Your task to perform on an android device: check the backup settings in the google photos Image 0: 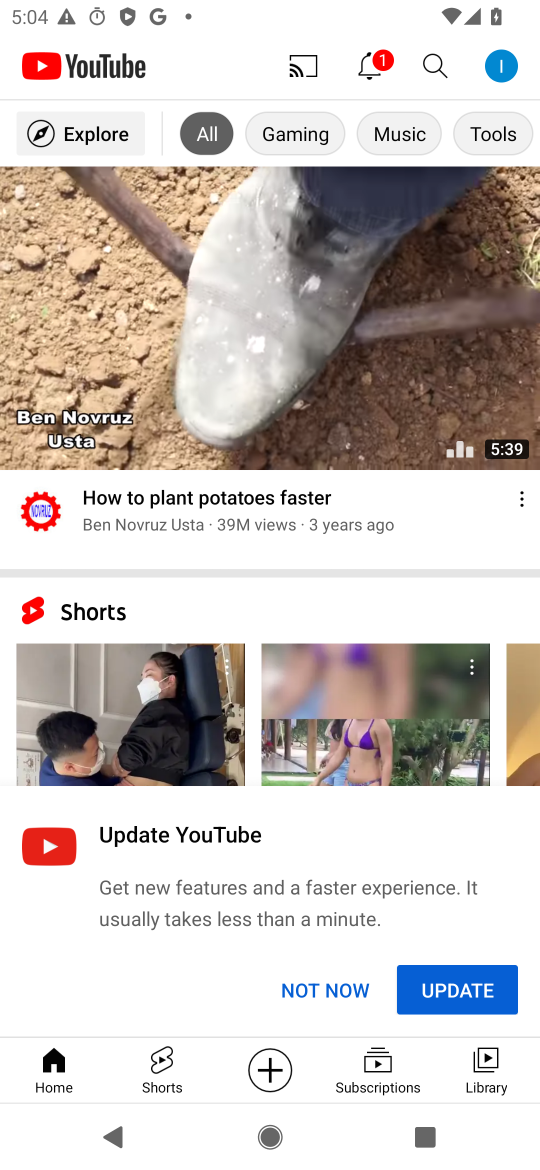
Step 0: press home button
Your task to perform on an android device: check the backup settings in the google photos Image 1: 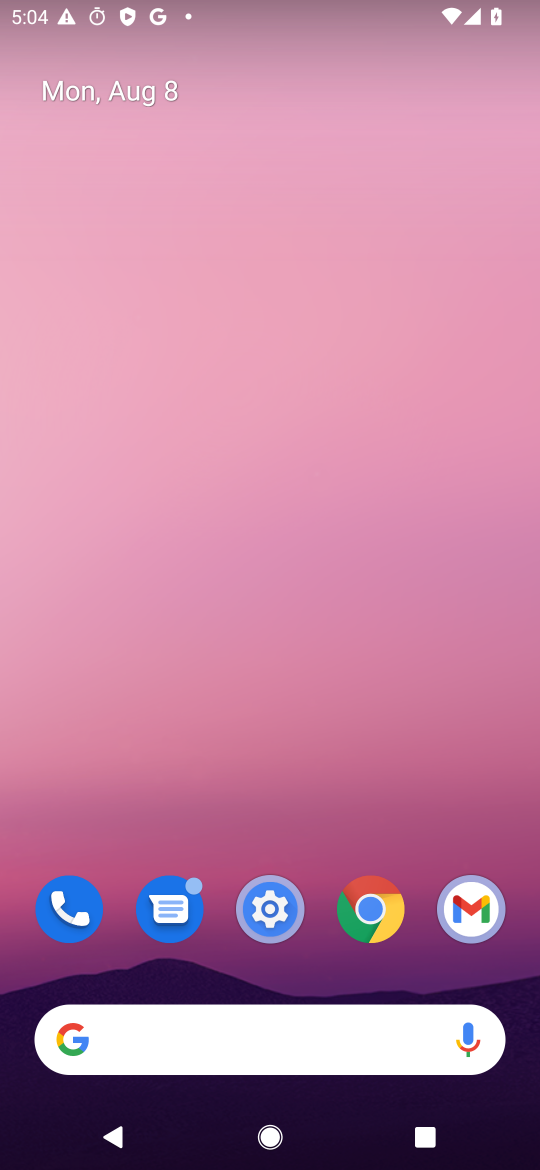
Step 1: drag from (262, 1000) to (317, 220)
Your task to perform on an android device: check the backup settings in the google photos Image 2: 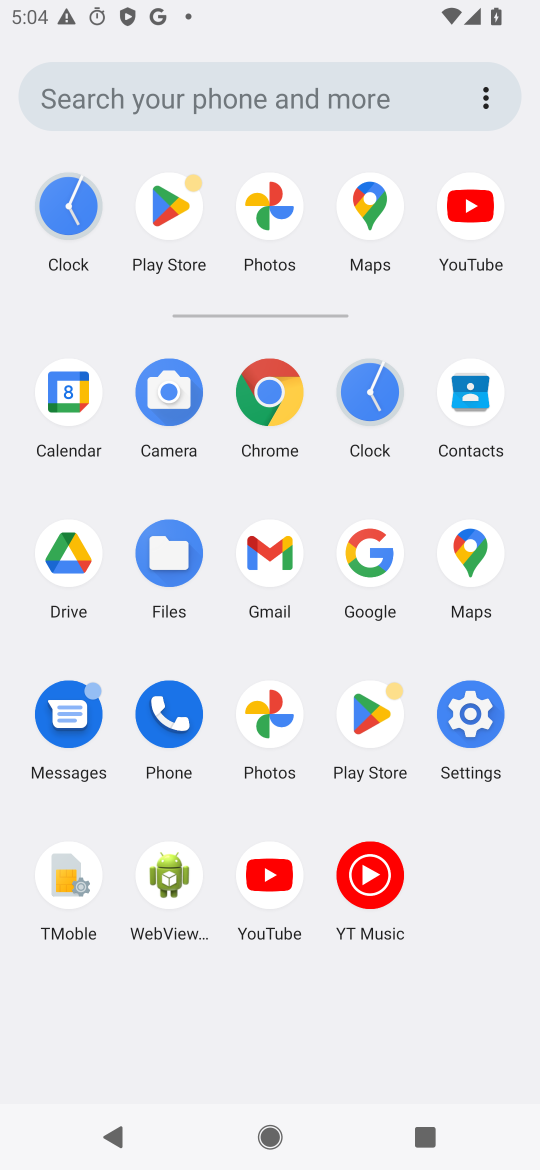
Step 2: click (271, 714)
Your task to perform on an android device: check the backup settings in the google photos Image 3: 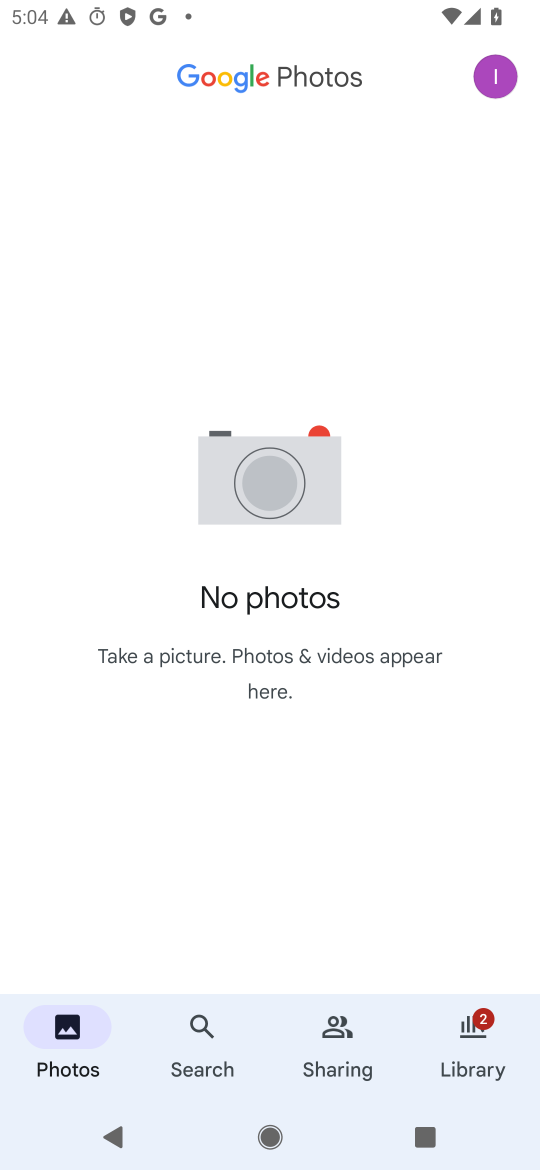
Step 3: click (492, 82)
Your task to perform on an android device: check the backup settings in the google photos Image 4: 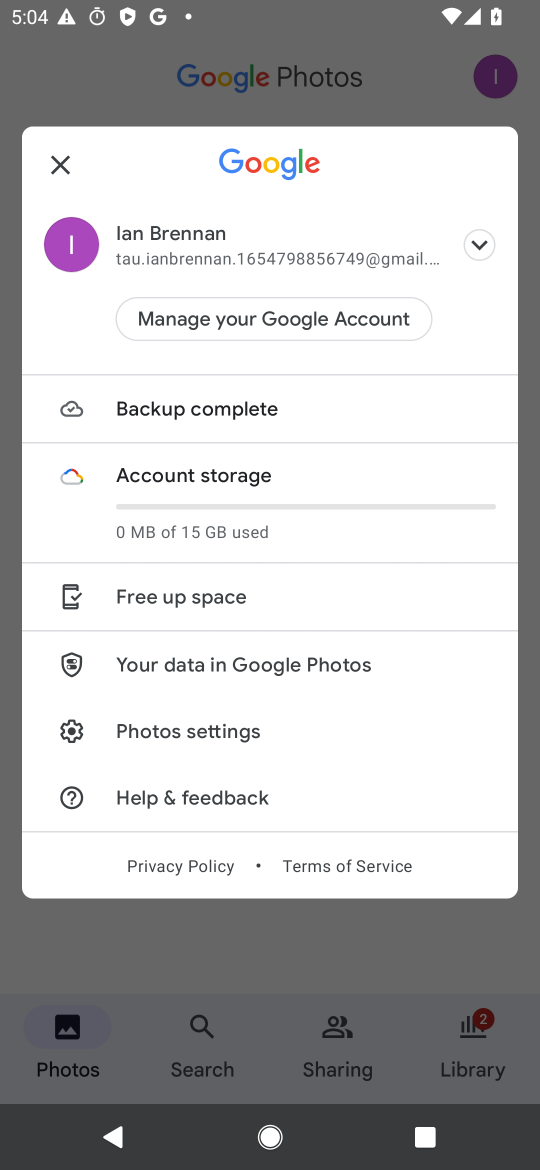
Step 4: click (243, 730)
Your task to perform on an android device: check the backup settings in the google photos Image 5: 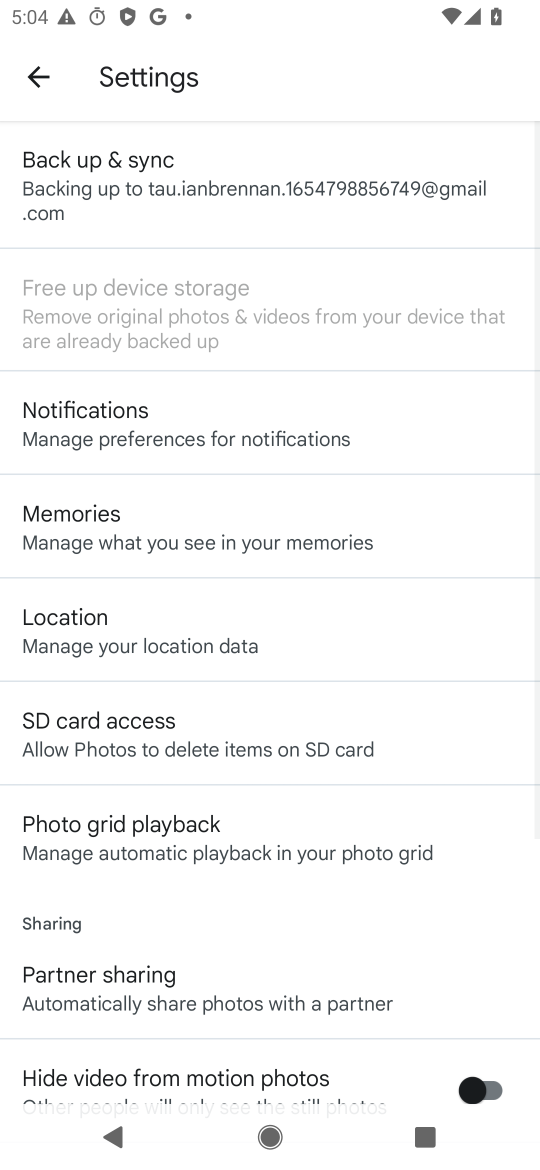
Step 5: click (251, 213)
Your task to perform on an android device: check the backup settings in the google photos Image 6: 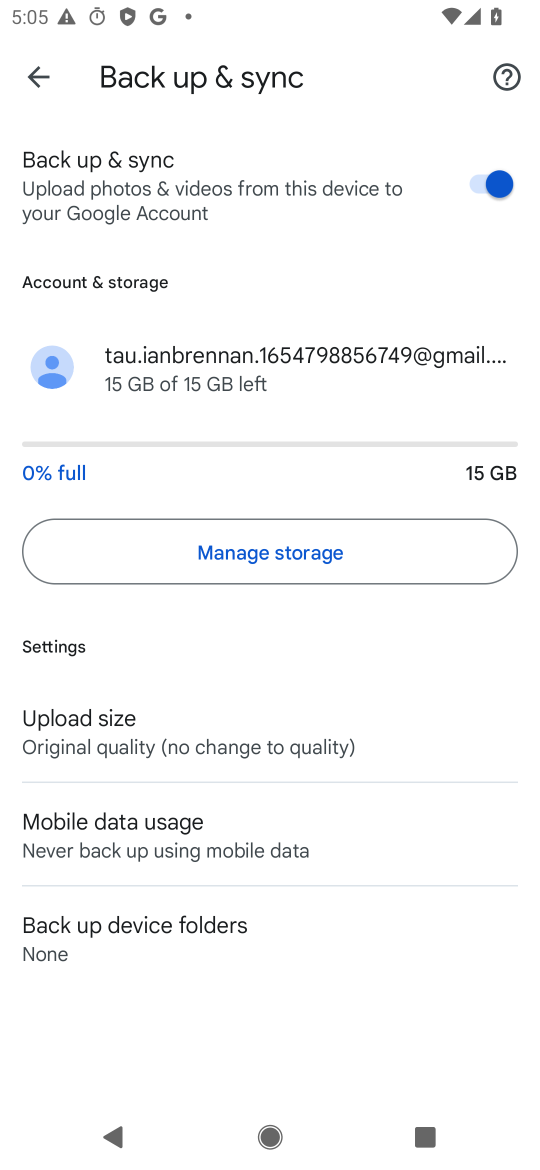
Step 6: click (204, 223)
Your task to perform on an android device: check the backup settings in the google photos Image 7: 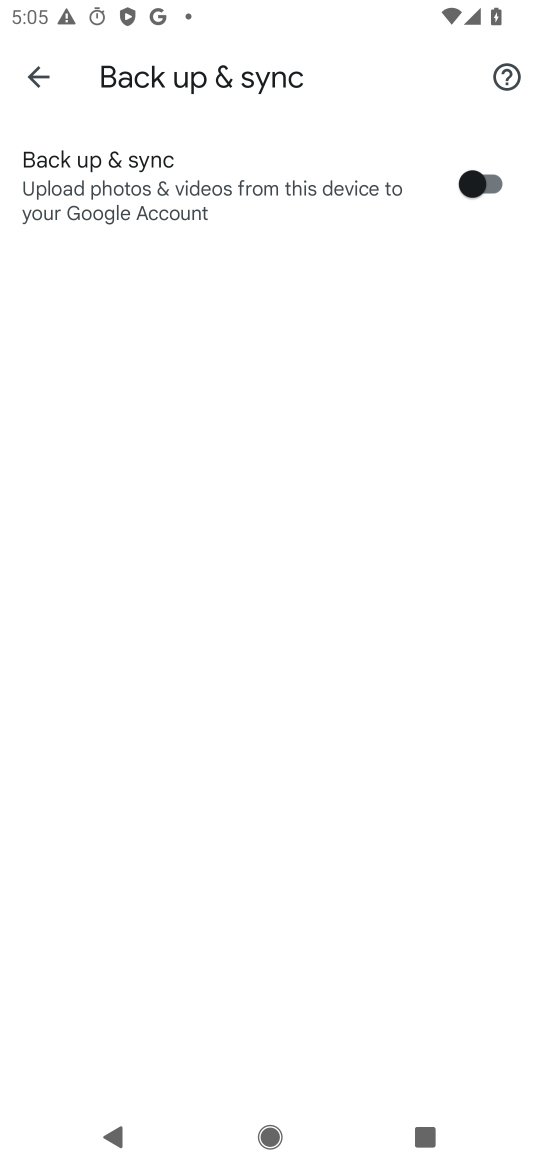
Step 7: click (490, 181)
Your task to perform on an android device: check the backup settings in the google photos Image 8: 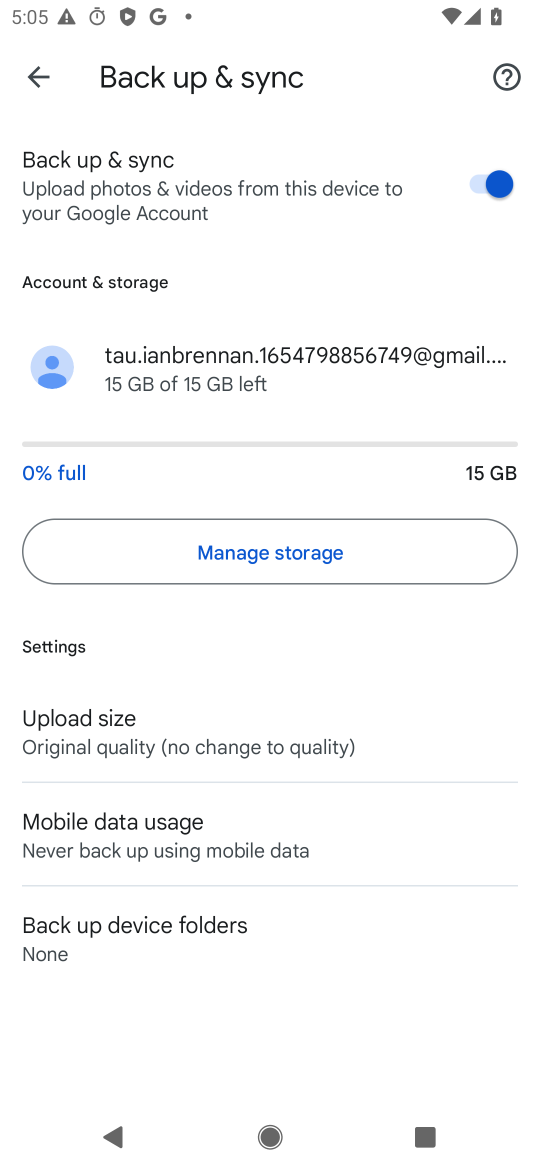
Step 8: task complete